Your task to perform on an android device: turn off improve location accuracy Image 0: 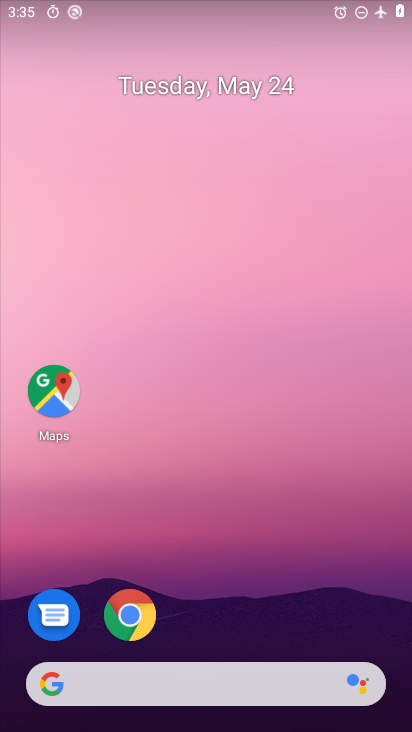
Step 0: drag from (204, 661) to (208, 253)
Your task to perform on an android device: turn off improve location accuracy Image 1: 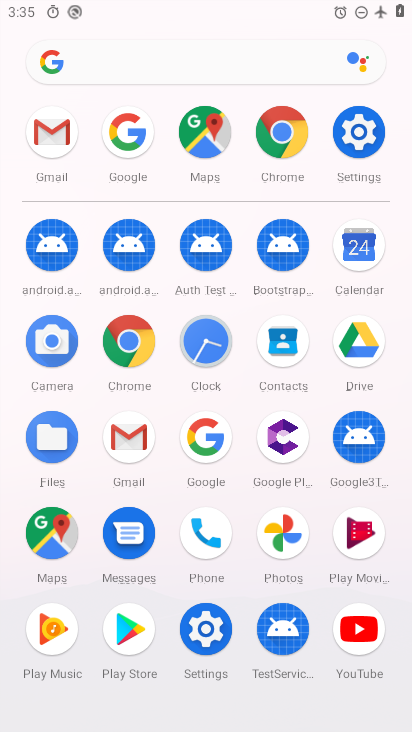
Step 1: click (196, 637)
Your task to perform on an android device: turn off improve location accuracy Image 2: 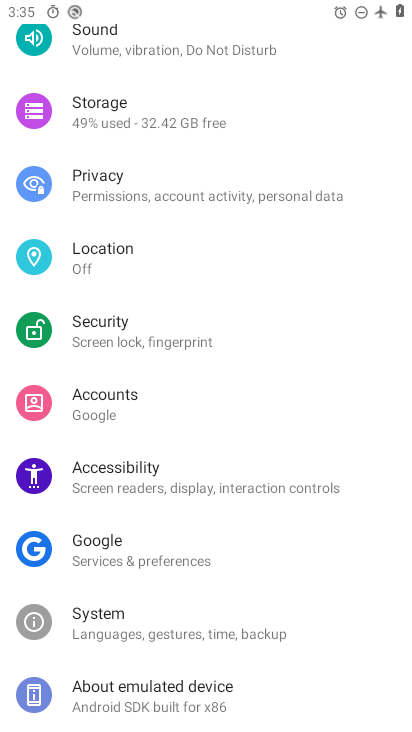
Step 2: click (96, 267)
Your task to perform on an android device: turn off improve location accuracy Image 3: 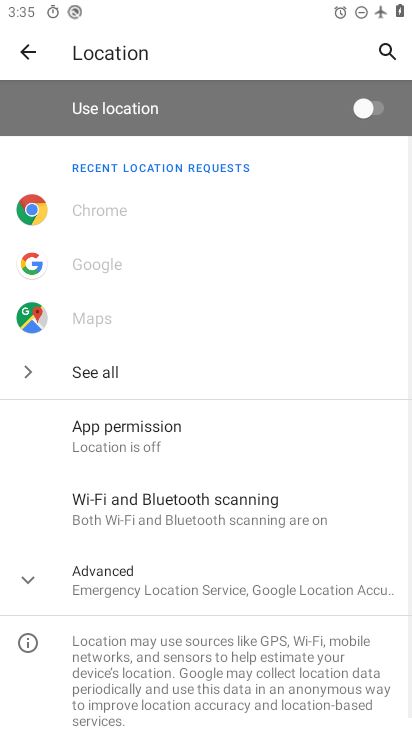
Step 3: click (137, 590)
Your task to perform on an android device: turn off improve location accuracy Image 4: 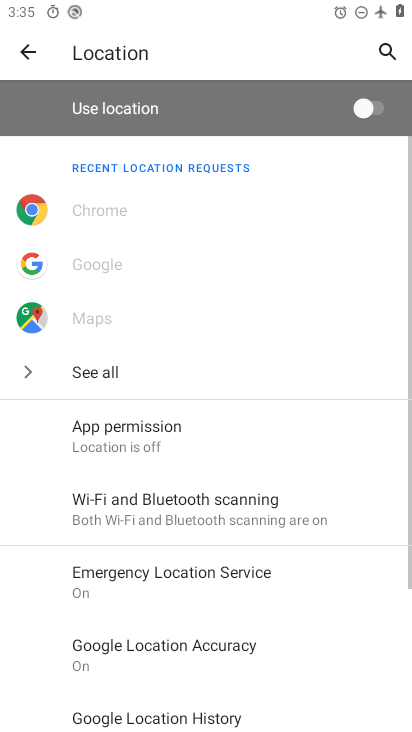
Step 4: drag from (145, 726) to (162, 370)
Your task to perform on an android device: turn off improve location accuracy Image 5: 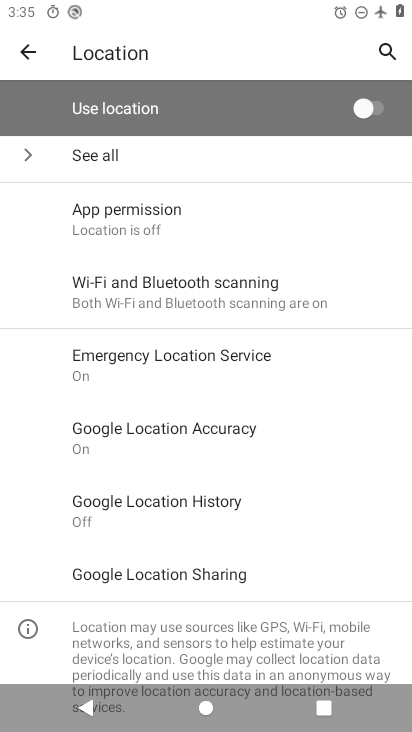
Step 5: click (191, 419)
Your task to perform on an android device: turn off improve location accuracy Image 6: 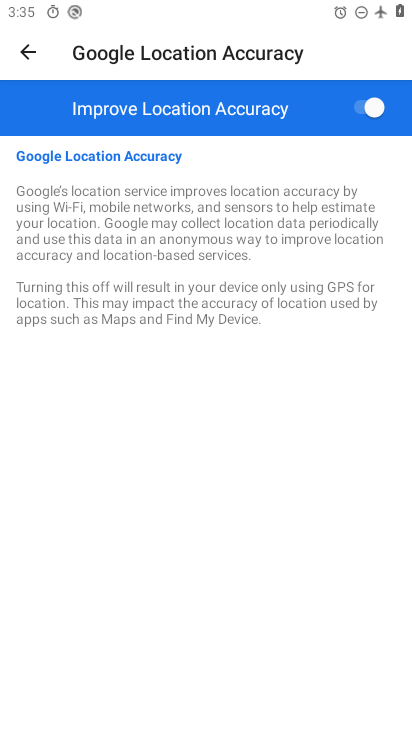
Step 6: click (367, 105)
Your task to perform on an android device: turn off improve location accuracy Image 7: 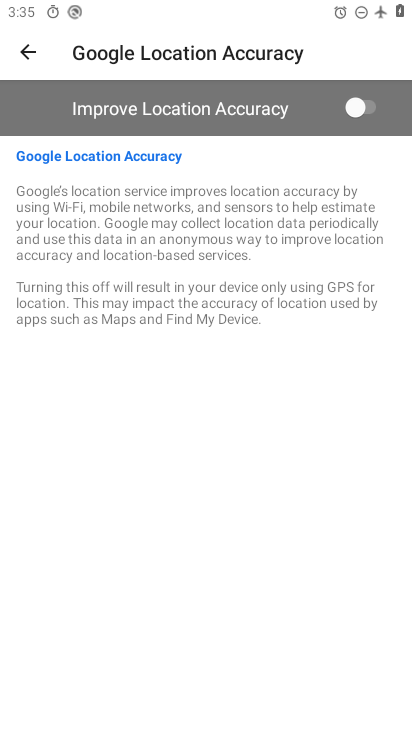
Step 7: task complete